Your task to perform on an android device: When is my next meeting? Image 0: 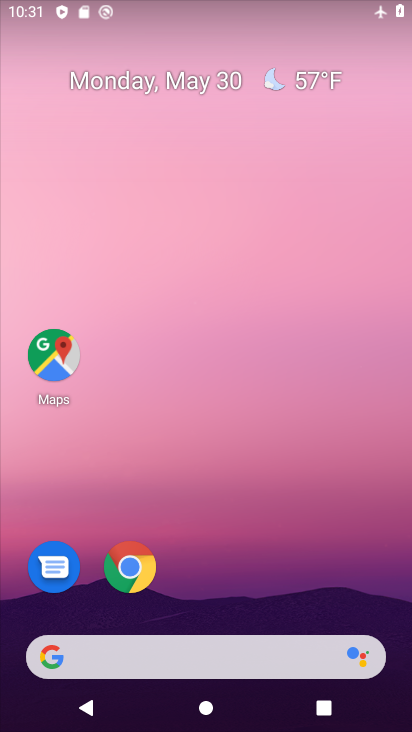
Step 0: drag from (210, 592) to (195, 146)
Your task to perform on an android device: When is my next meeting? Image 1: 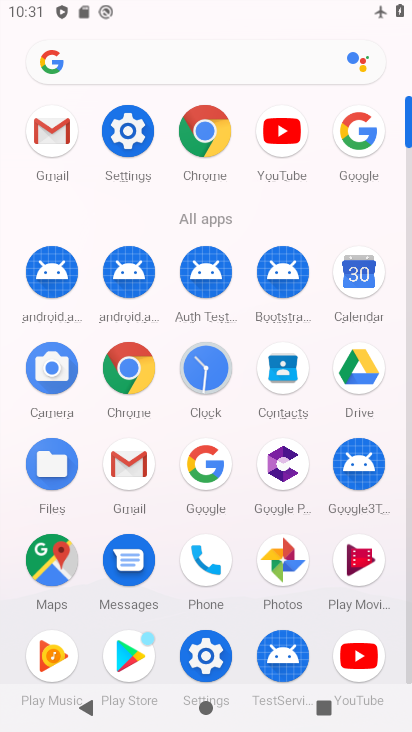
Step 1: click (351, 266)
Your task to perform on an android device: When is my next meeting? Image 2: 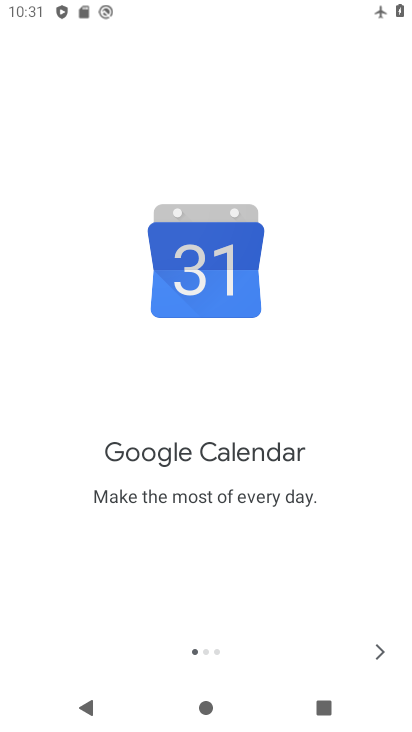
Step 2: click (374, 652)
Your task to perform on an android device: When is my next meeting? Image 3: 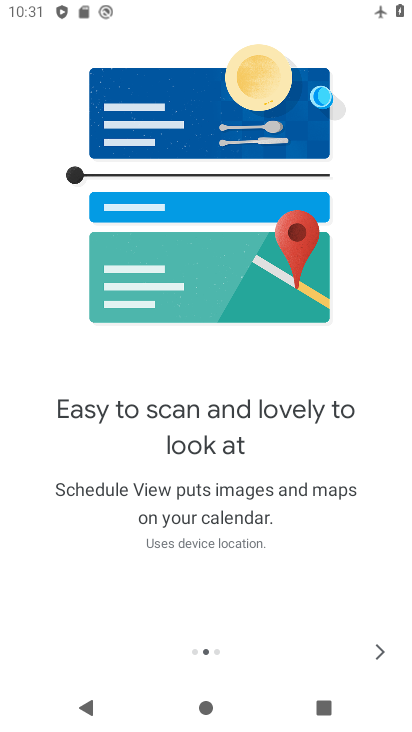
Step 3: click (374, 652)
Your task to perform on an android device: When is my next meeting? Image 4: 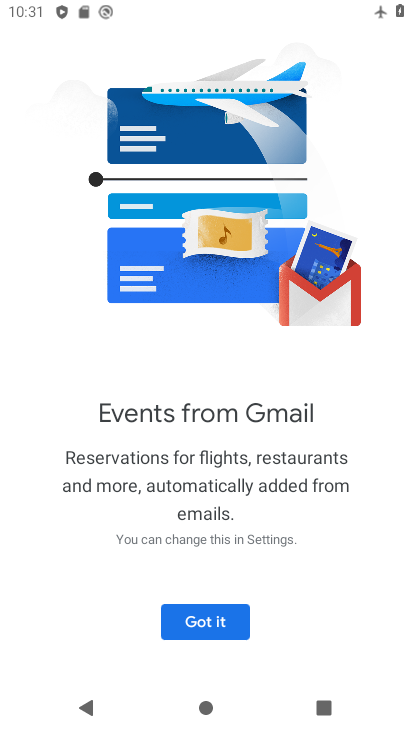
Step 4: click (242, 620)
Your task to perform on an android device: When is my next meeting? Image 5: 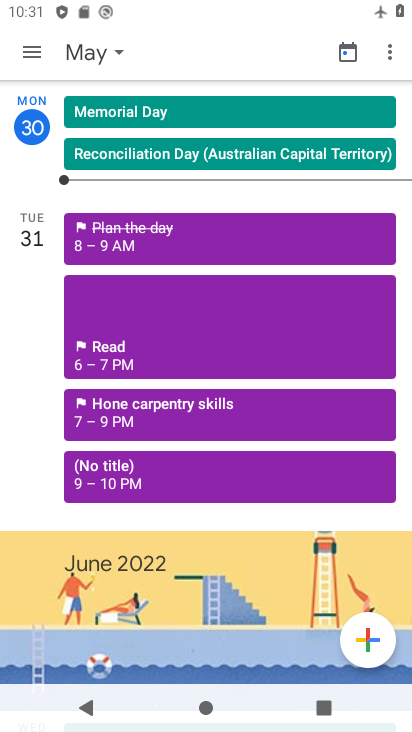
Step 5: task complete